Your task to perform on an android device: Go to Google maps Image 0: 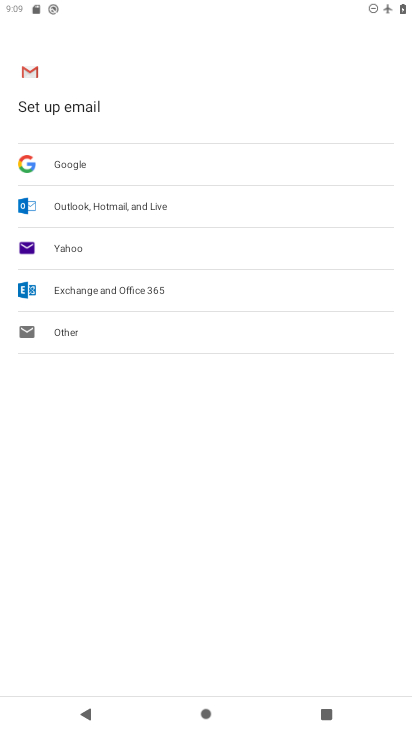
Step 0: press home button
Your task to perform on an android device: Go to Google maps Image 1: 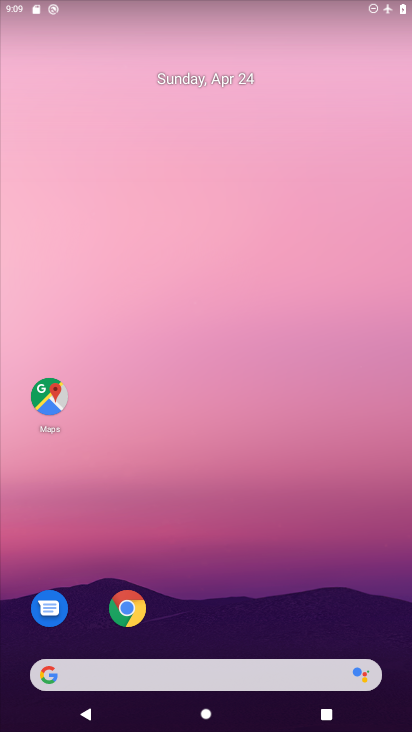
Step 1: click (54, 405)
Your task to perform on an android device: Go to Google maps Image 2: 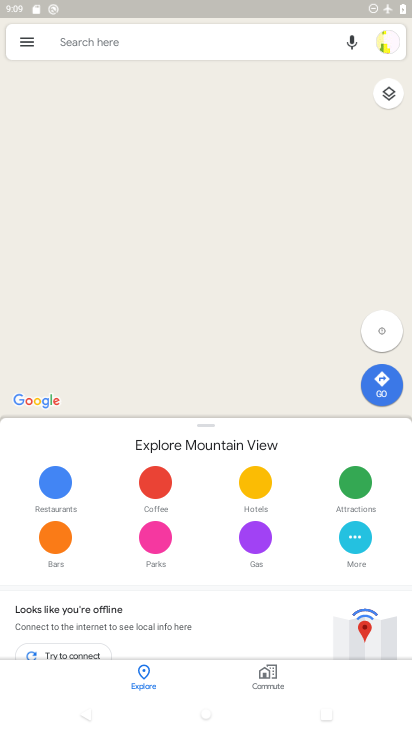
Step 2: task complete